Your task to perform on an android device: set default search engine in the chrome app Image 0: 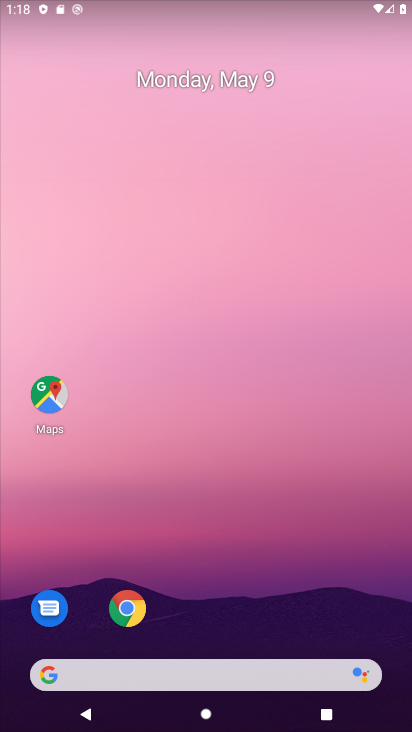
Step 0: drag from (300, 579) to (328, 85)
Your task to perform on an android device: set default search engine in the chrome app Image 1: 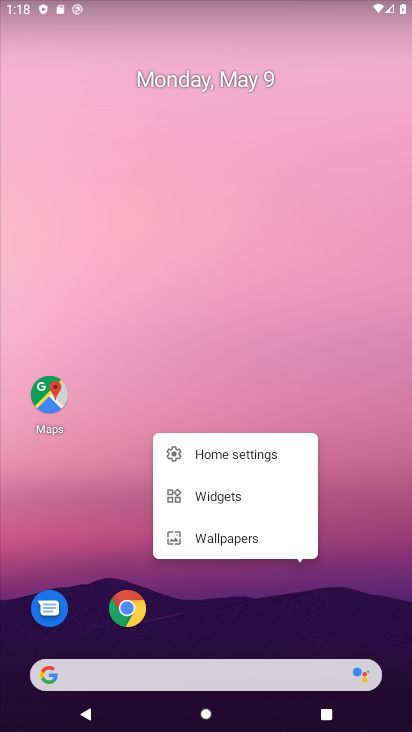
Step 1: click (368, 270)
Your task to perform on an android device: set default search engine in the chrome app Image 2: 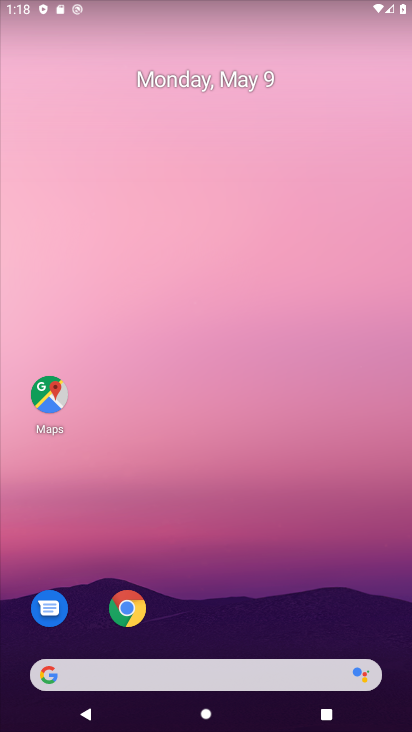
Step 2: drag from (343, 610) to (343, 31)
Your task to perform on an android device: set default search engine in the chrome app Image 3: 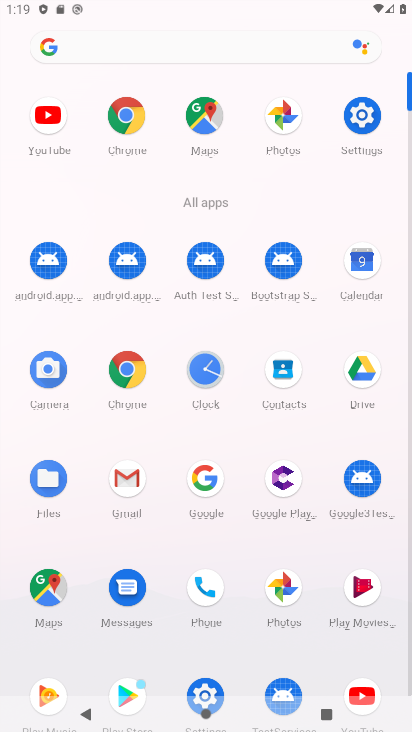
Step 3: click (127, 356)
Your task to perform on an android device: set default search engine in the chrome app Image 4: 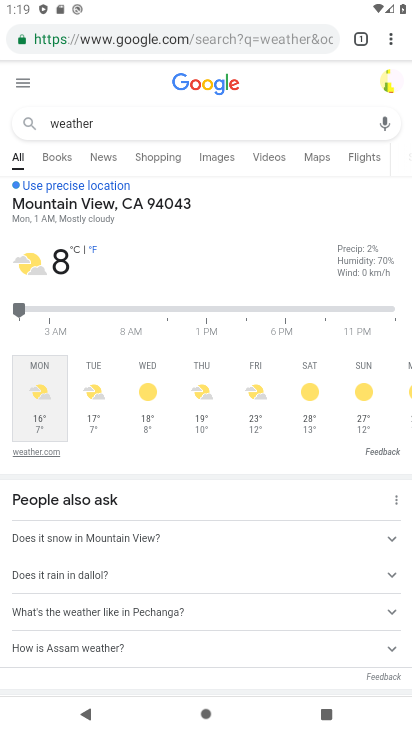
Step 4: click (383, 39)
Your task to perform on an android device: set default search engine in the chrome app Image 5: 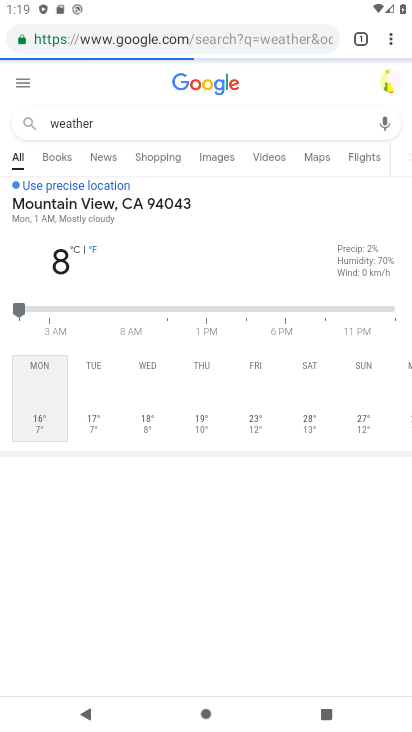
Step 5: drag from (383, 41) to (369, 427)
Your task to perform on an android device: set default search engine in the chrome app Image 6: 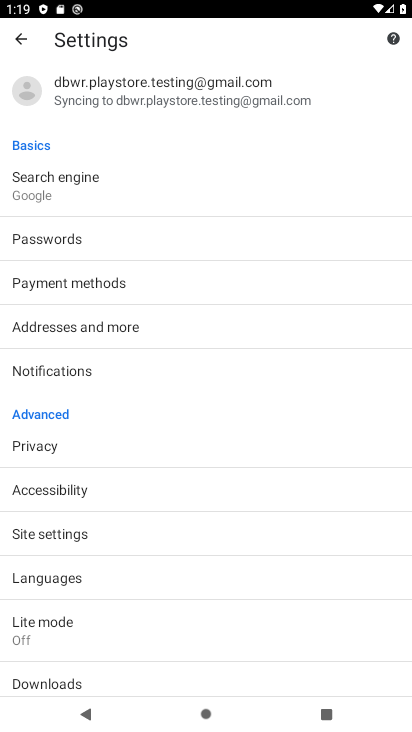
Step 6: click (150, 194)
Your task to perform on an android device: set default search engine in the chrome app Image 7: 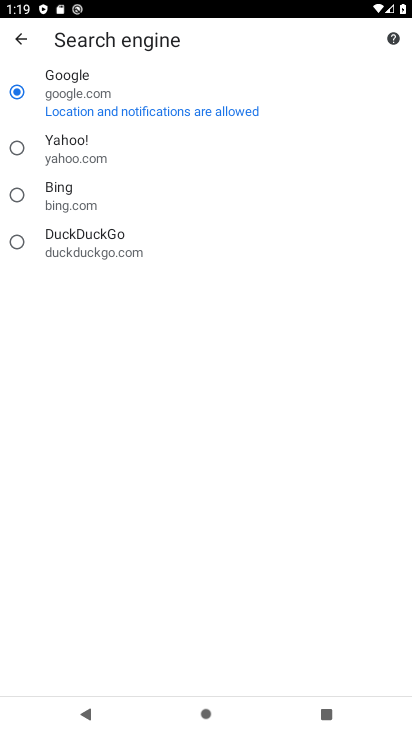
Step 7: task complete